Your task to perform on an android device: find which apps use the phone's location Image 0: 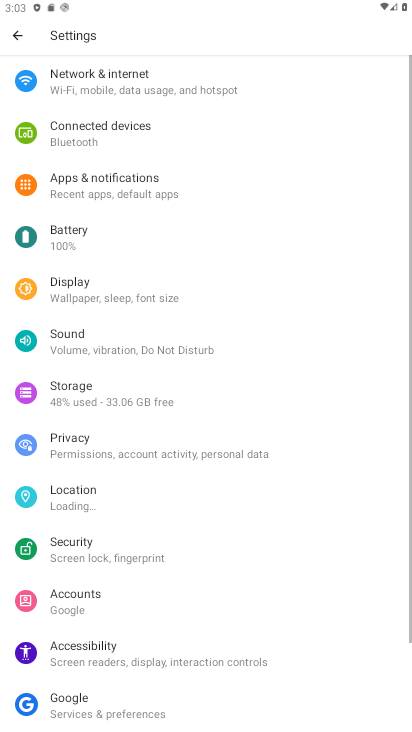
Step 0: press home button
Your task to perform on an android device: find which apps use the phone's location Image 1: 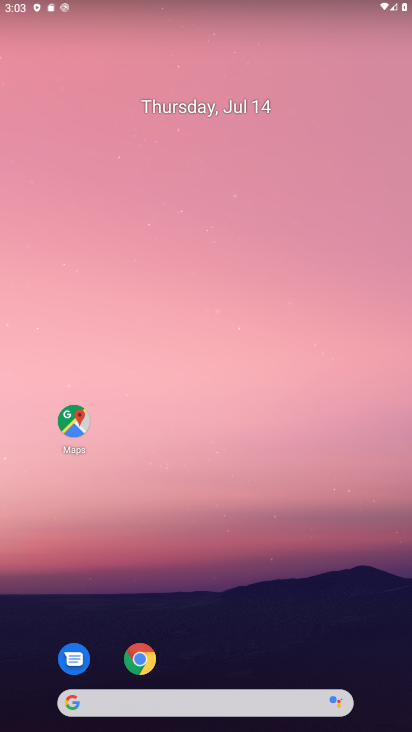
Step 1: drag from (220, 647) to (257, 312)
Your task to perform on an android device: find which apps use the phone's location Image 2: 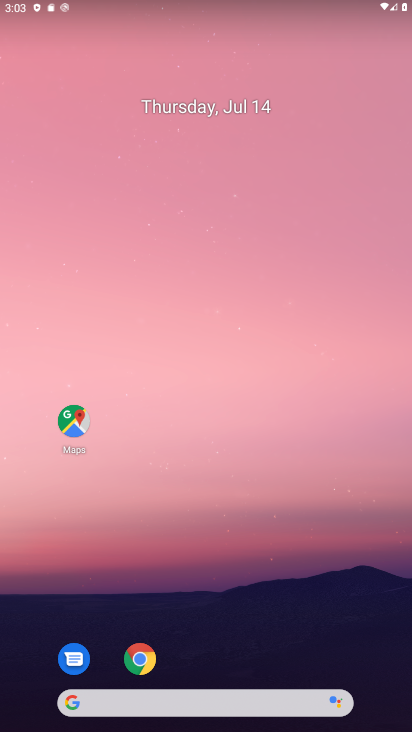
Step 2: drag from (220, 607) to (277, 316)
Your task to perform on an android device: find which apps use the phone's location Image 3: 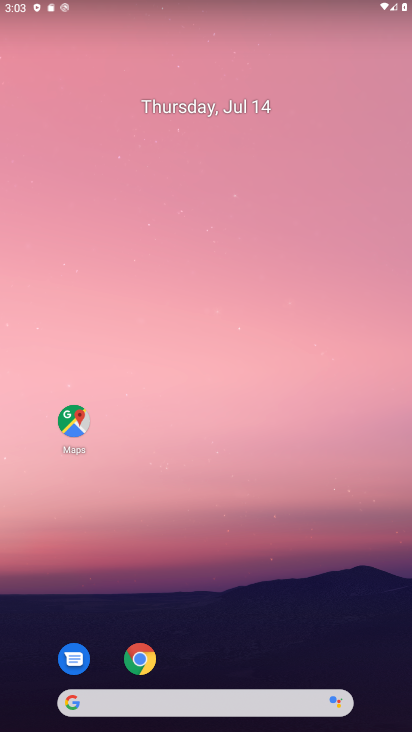
Step 3: drag from (239, 666) to (261, 239)
Your task to perform on an android device: find which apps use the phone's location Image 4: 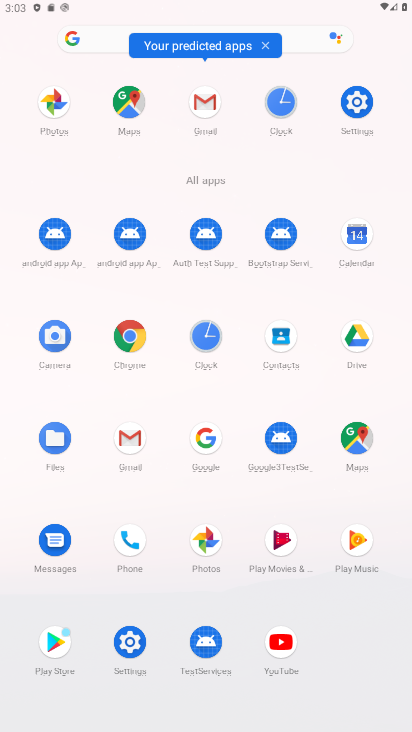
Step 4: click (124, 647)
Your task to perform on an android device: find which apps use the phone's location Image 5: 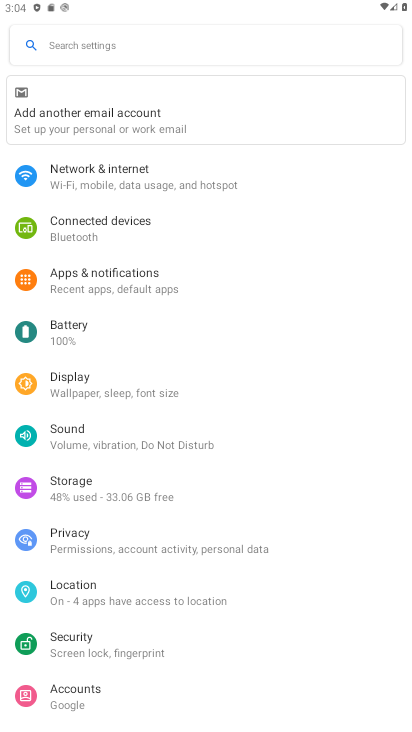
Step 5: click (58, 591)
Your task to perform on an android device: find which apps use the phone's location Image 6: 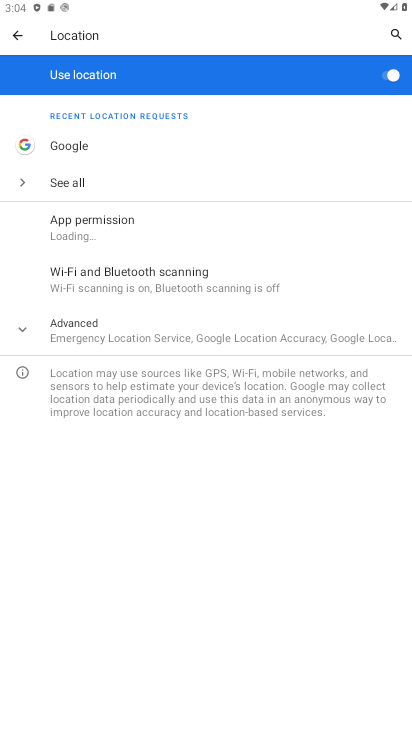
Step 6: click (128, 220)
Your task to perform on an android device: find which apps use the phone's location Image 7: 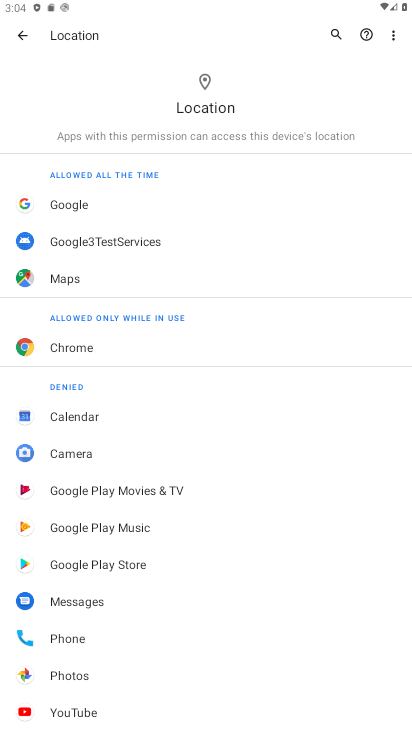
Step 7: task complete